Your task to perform on an android device: turn on improve location accuracy Image 0: 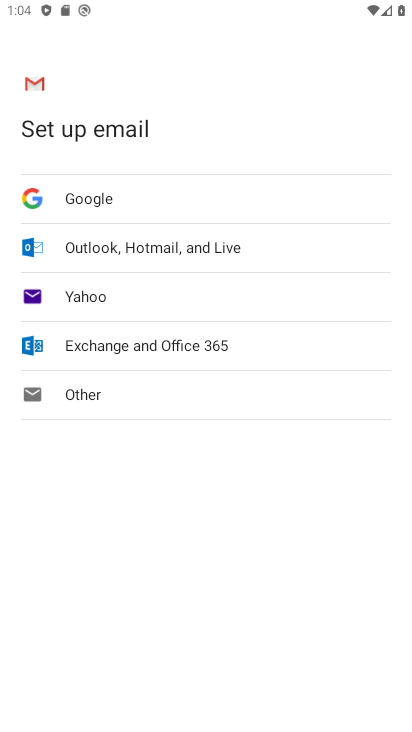
Step 0: press home button
Your task to perform on an android device: turn on improve location accuracy Image 1: 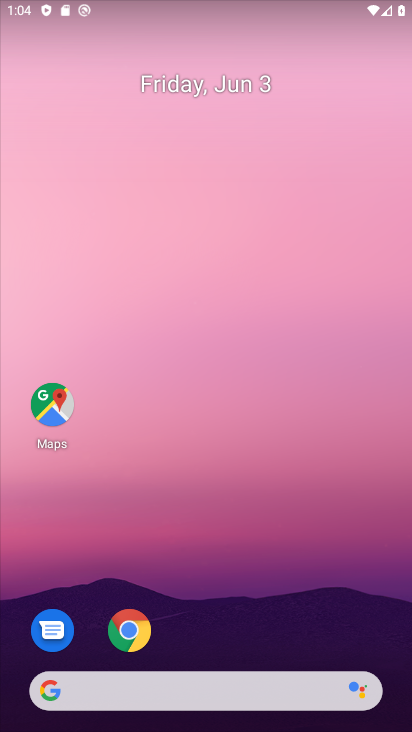
Step 1: drag from (213, 713) to (204, 48)
Your task to perform on an android device: turn on improve location accuracy Image 2: 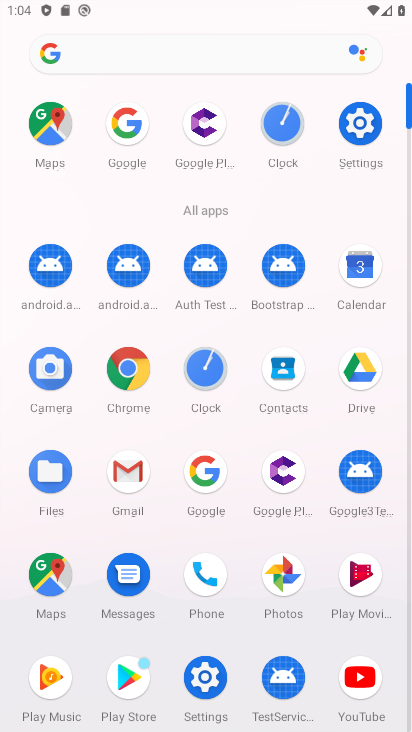
Step 2: click (360, 123)
Your task to perform on an android device: turn on improve location accuracy Image 3: 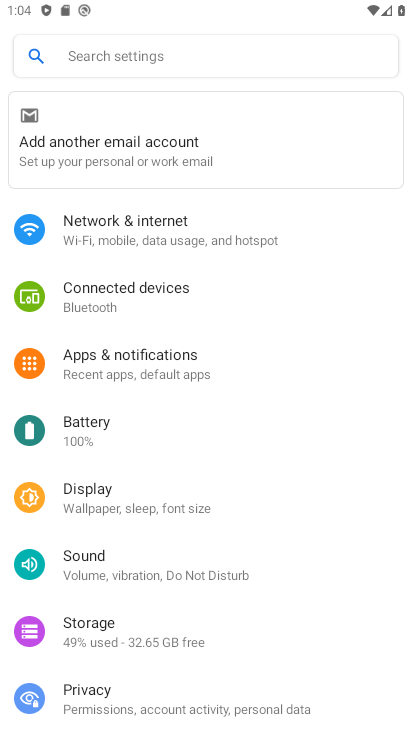
Step 3: drag from (119, 664) to (122, 286)
Your task to perform on an android device: turn on improve location accuracy Image 4: 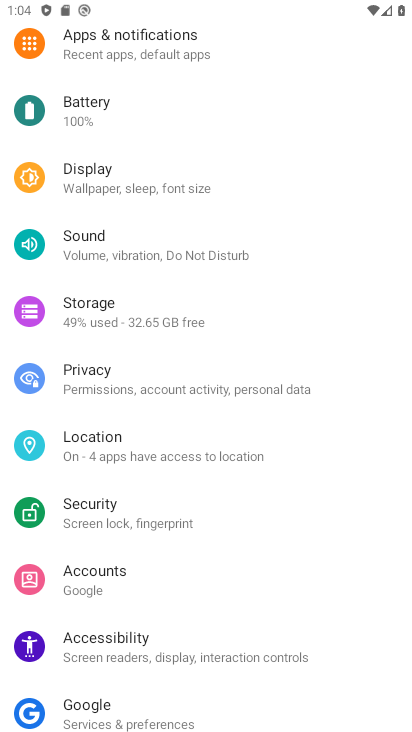
Step 4: click (93, 443)
Your task to perform on an android device: turn on improve location accuracy Image 5: 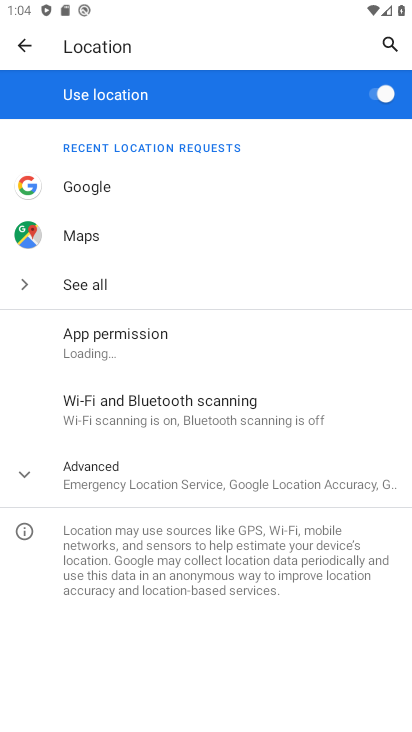
Step 5: click (94, 473)
Your task to perform on an android device: turn on improve location accuracy Image 6: 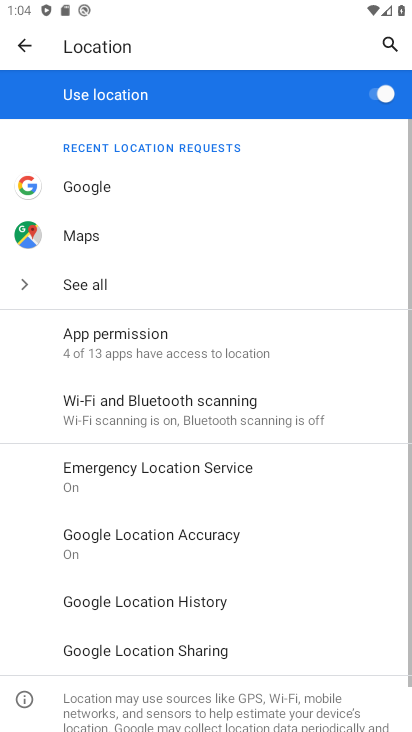
Step 6: click (160, 531)
Your task to perform on an android device: turn on improve location accuracy Image 7: 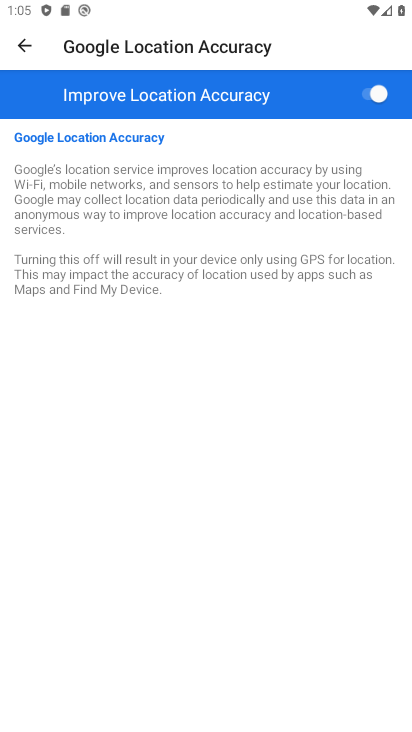
Step 7: task complete